Your task to perform on an android device: Open Google Maps Image 0: 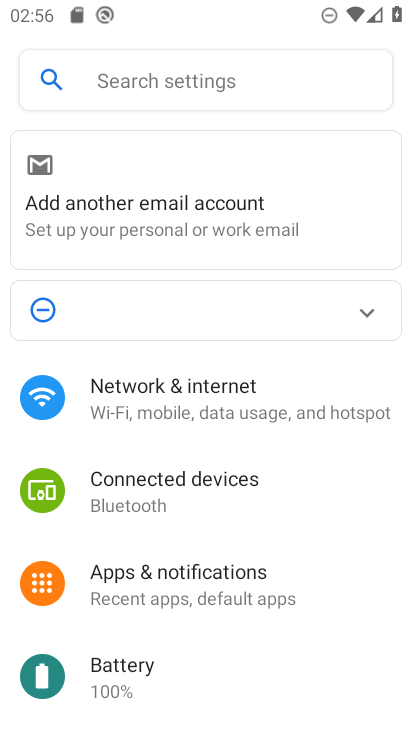
Step 0: press home button
Your task to perform on an android device: Open Google Maps Image 1: 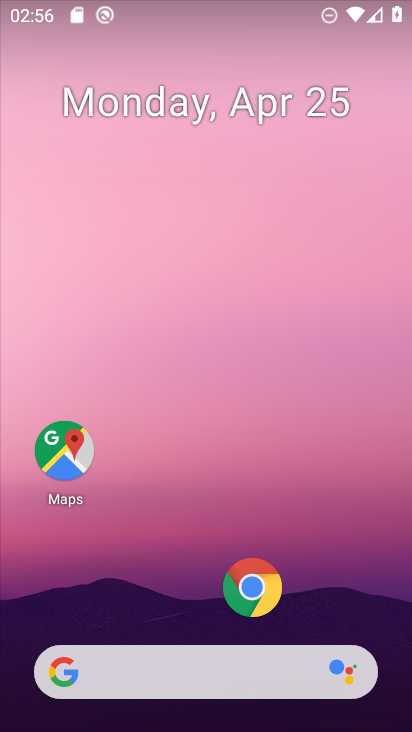
Step 1: drag from (202, 617) to (239, 34)
Your task to perform on an android device: Open Google Maps Image 2: 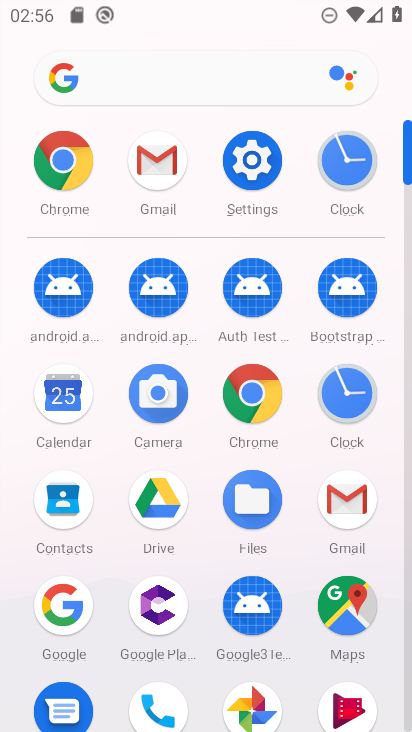
Step 2: click (343, 599)
Your task to perform on an android device: Open Google Maps Image 3: 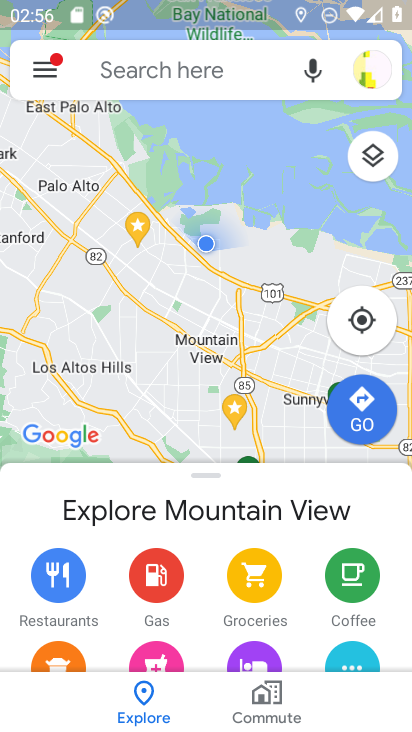
Step 3: task complete